Your task to perform on an android device: create a new album in the google photos Image 0: 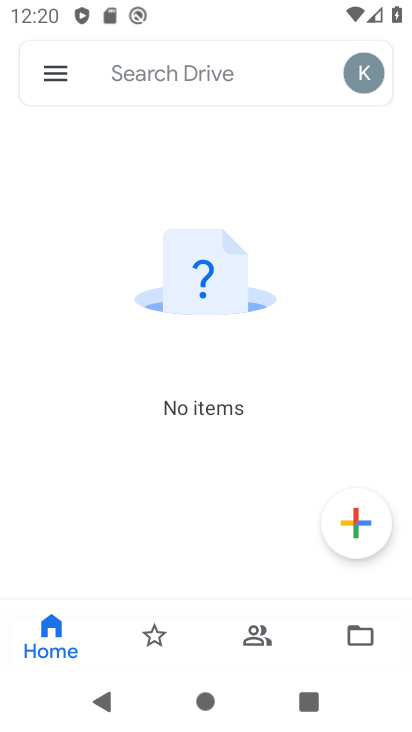
Step 0: press home button
Your task to perform on an android device: create a new album in the google photos Image 1: 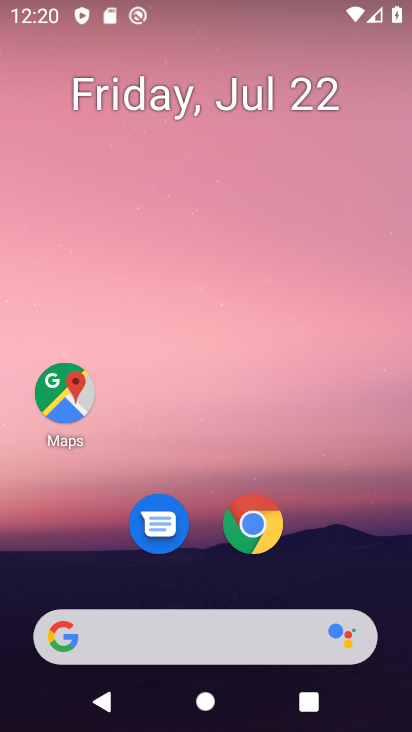
Step 1: drag from (201, 647) to (304, 107)
Your task to perform on an android device: create a new album in the google photos Image 2: 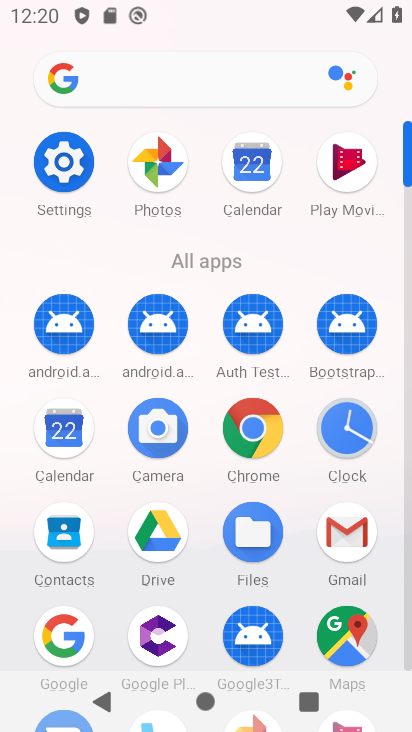
Step 2: click (166, 158)
Your task to perform on an android device: create a new album in the google photos Image 3: 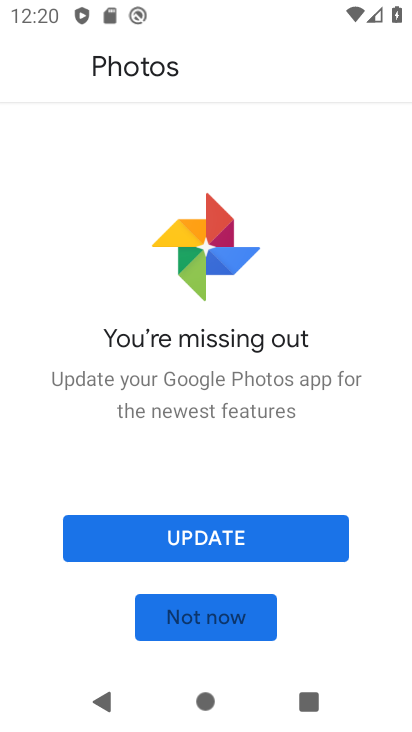
Step 3: click (215, 610)
Your task to perform on an android device: create a new album in the google photos Image 4: 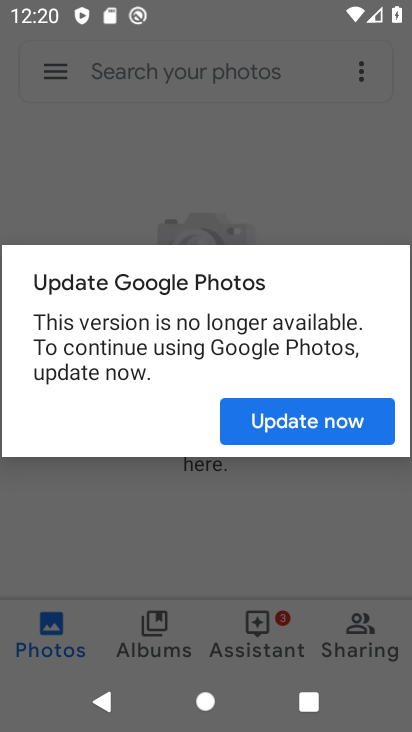
Step 4: click (289, 425)
Your task to perform on an android device: create a new album in the google photos Image 5: 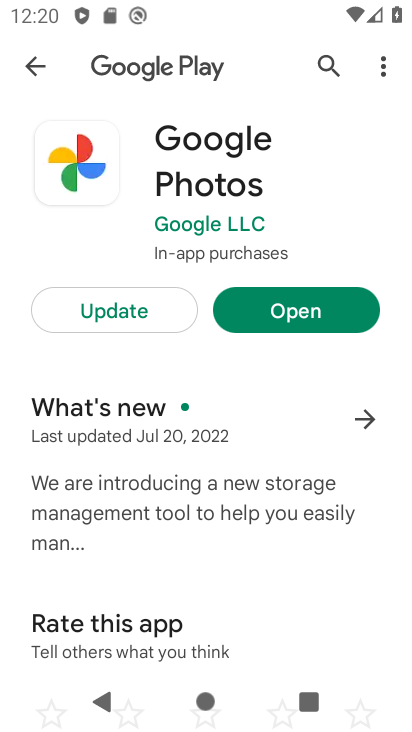
Step 5: click (296, 297)
Your task to perform on an android device: create a new album in the google photos Image 6: 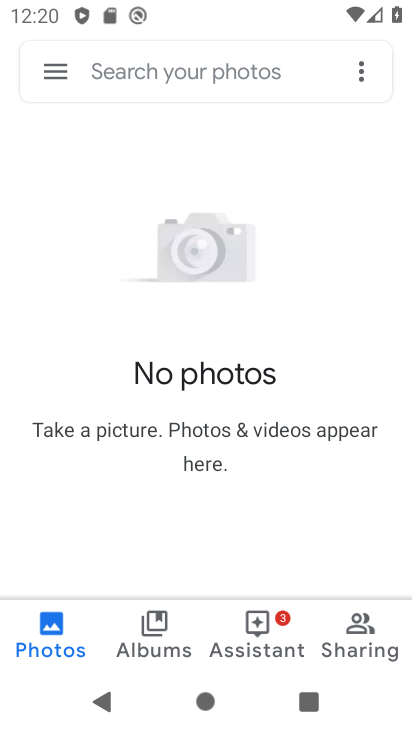
Step 6: click (132, 626)
Your task to perform on an android device: create a new album in the google photos Image 7: 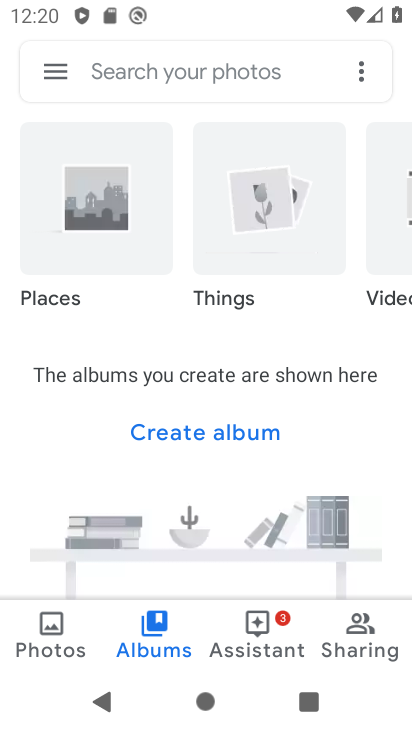
Step 7: click (232, 436)
Your task to perform on an android device: create a new album in the google photos Image 8: 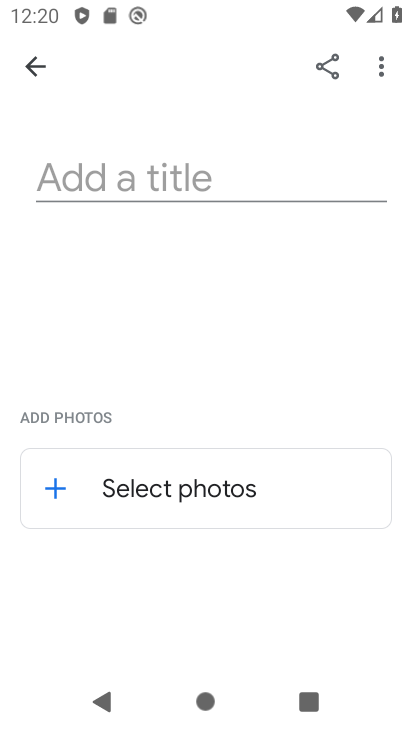
Step 8: click (27, 58)
Your task to perform on an android device: create a new album in the google photos Image 9: 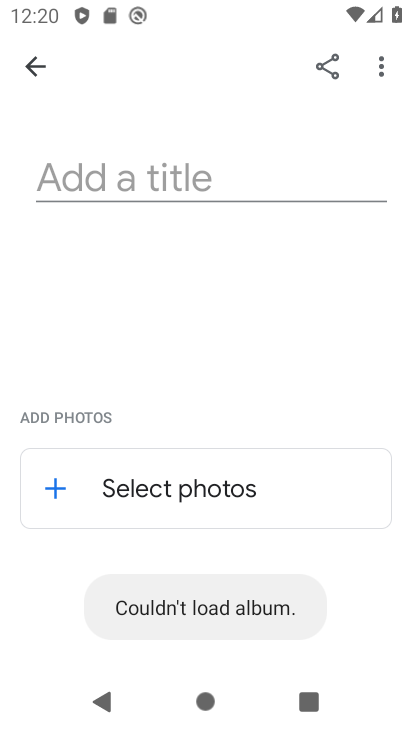
Step 9: task complete